Your task to perform on an android device: Go to Wikipedia Image 0: 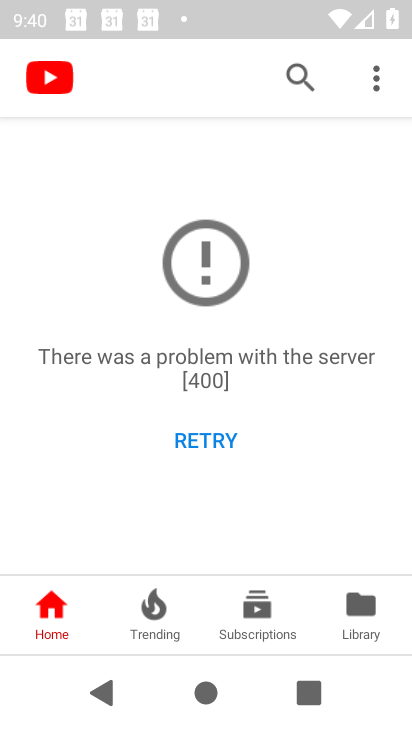
Step 0: press home button
Your task to perform on an android device: Go to Wikipedia Image 1: 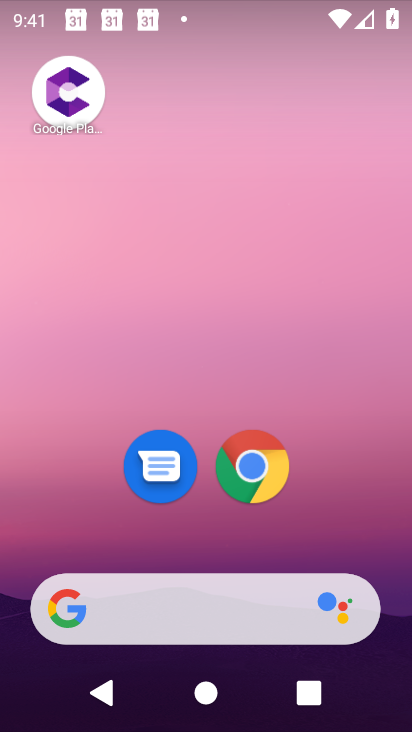
Step 1: click (250, 463)
Your task to perform on an android device: Go to Wikipedia Image 2: 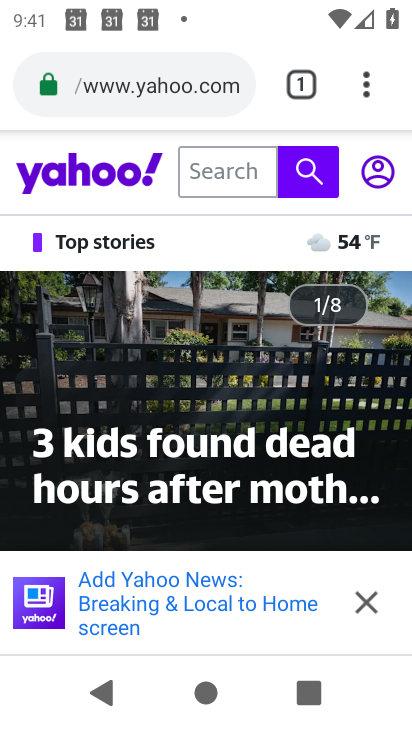
Step 2: click (148, 74)
Your task to perform on an android device: Go to Wikipedia Image 3: 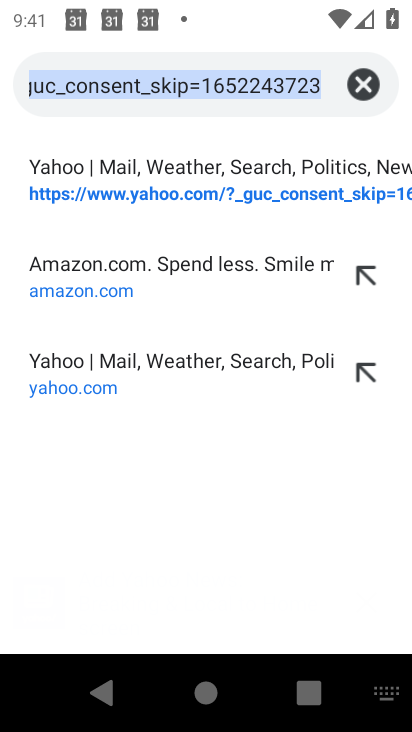
Step 3: type "wikipedia"
Your task to perform on an android device: Go to Wikipedia Image 4: 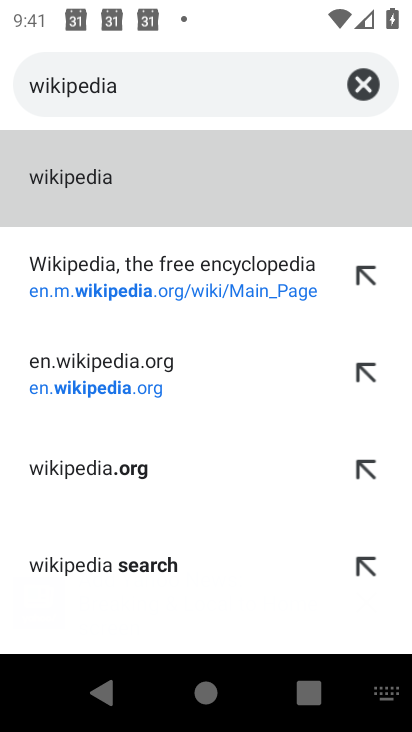
Step 4: click (86, 175)
Your task to perform on an android device: Go to Wikipedia Image 5: 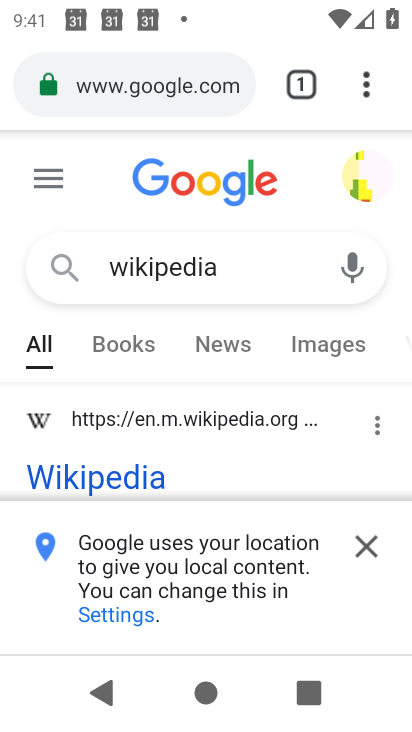
Step 5: click (112, 475)
Your task to perform on an android device: Go to Wikipedia Image 6: 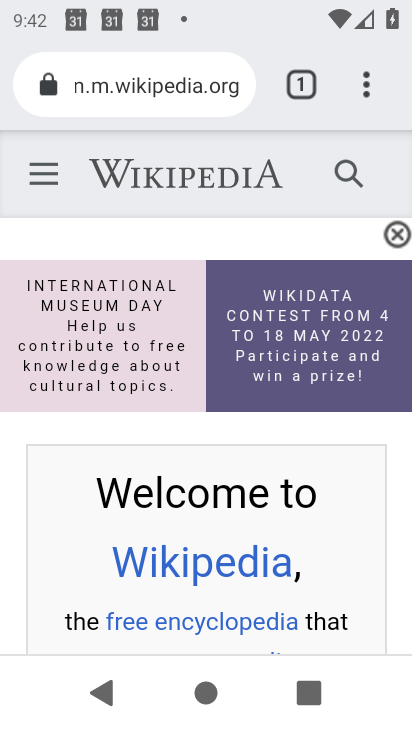
Step 6: task complete